Your task to perform on an android device: check the backup settings in the google photos Image 0: 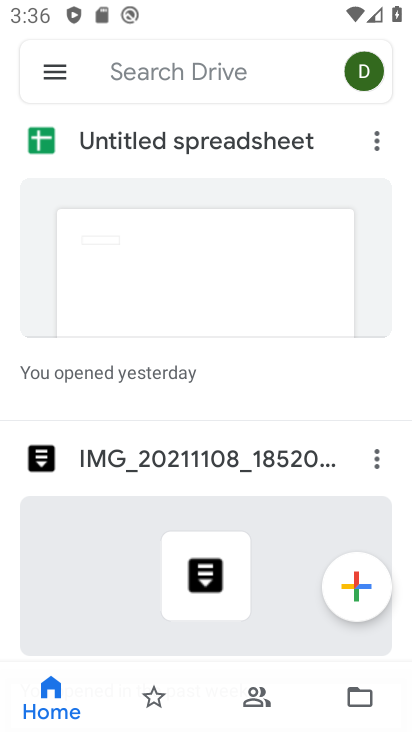
Step 0: press back button
Your task to perform on an android device: check the backup settings in the google photos Image 1: 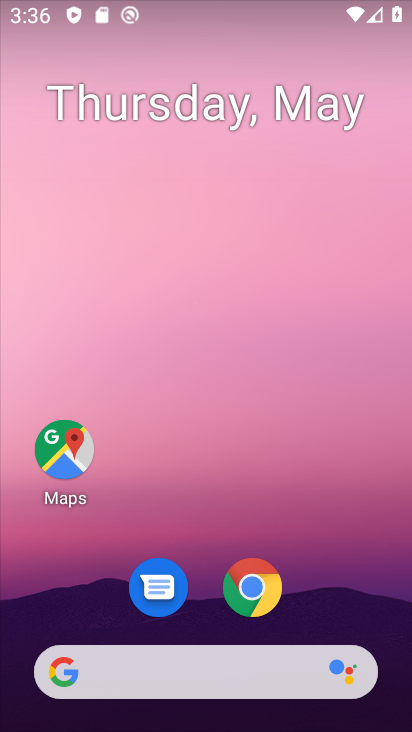
Step 1: drag from (332, 607) to (269, 2)
Your task to perform on an android device: check the backup settings in the google photos Image 2: 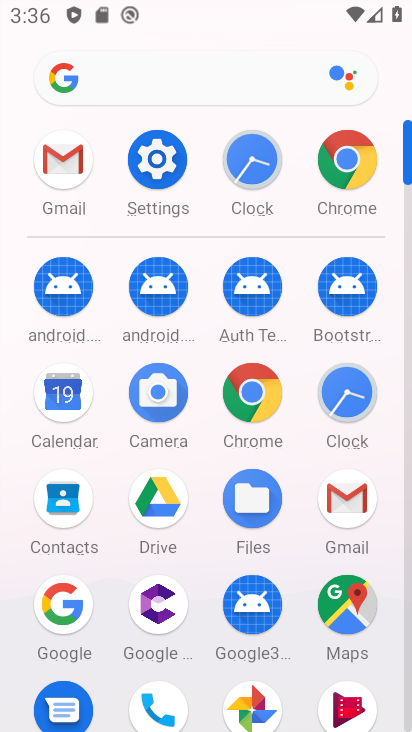
Step 2: drag from (18, 523) to (14, 238)
Your task to perform on an android device: check the backup settings in the google photos Image 3: 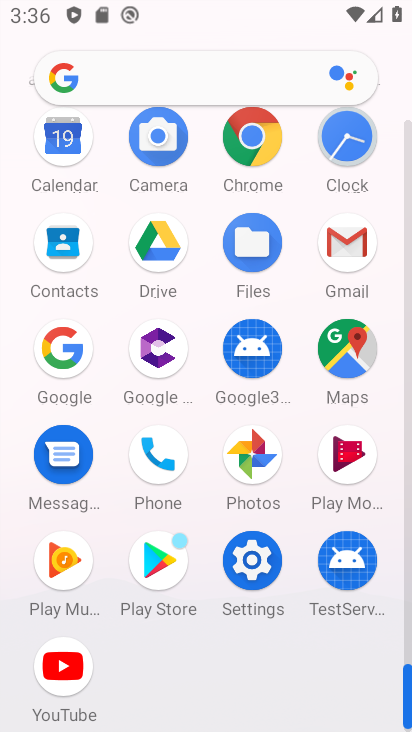
Step 3: click (251, 447)
Your task to perform on an android device: check the backup settings in the google photos Image 4: 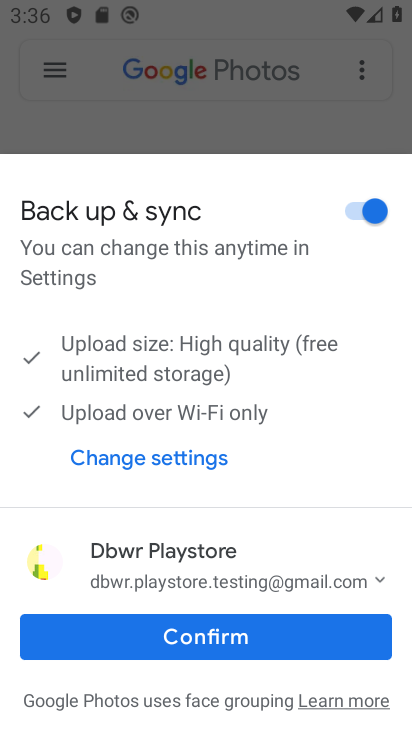
Step 4: click (173, 644)
Your task to perform on an android device: check the backup settings in the google photos Image 5: 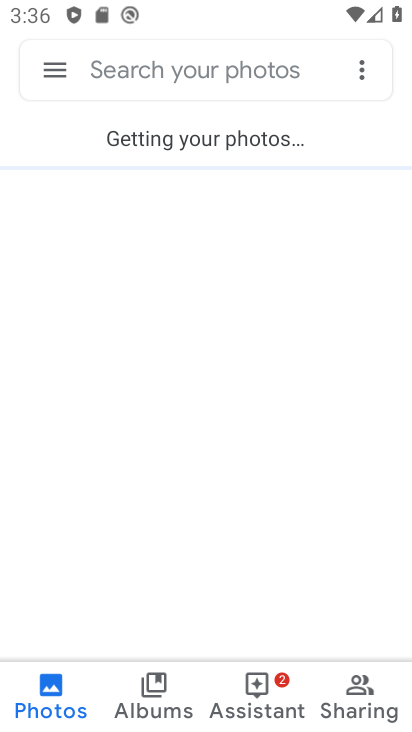
Step 5: click (63, 64)
Your task to perform on an android device: check the backup settings in the google photos Image 6: 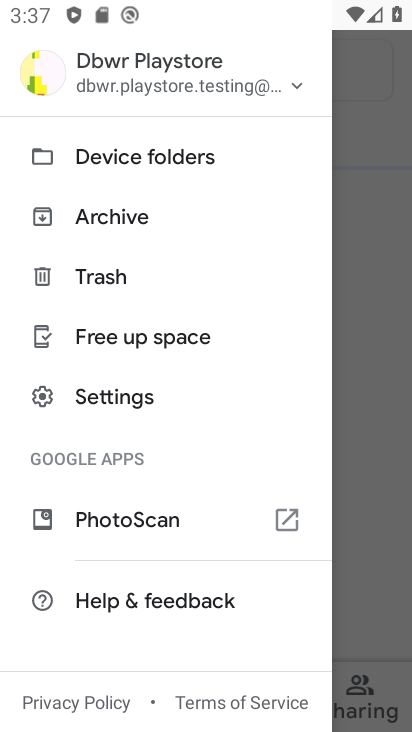
Step 6: click (124, 394)
Your task to perform on an android device: check the backup settings in the google photos Image 7: 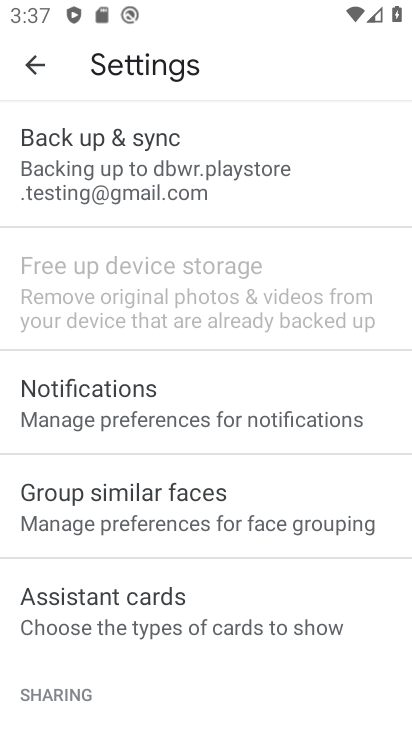
Step 7: click (230, 136)
Your task to perform on an android device: check the backup settings in the google photos Image 8: 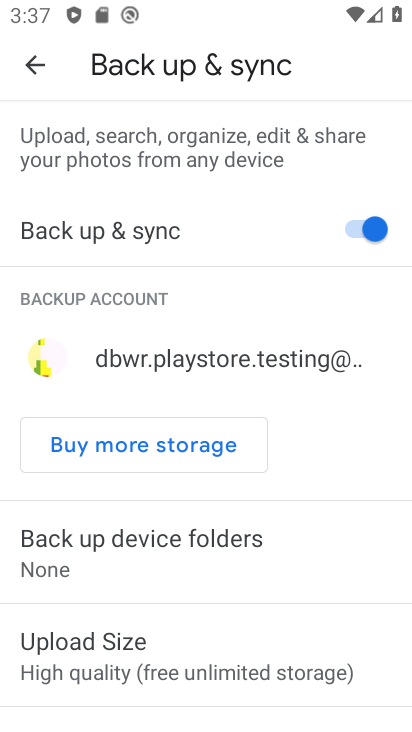
Step 8: task complete